Your task to perform on an android device: Open calendar and show me the first week of next month Image 0: 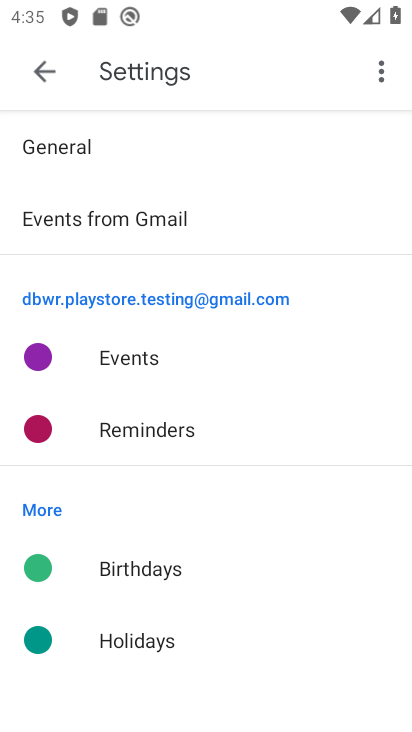
Step 0: press home button
Your task to perform on an android device: Open calendar and show me the first week of next month Image 1: 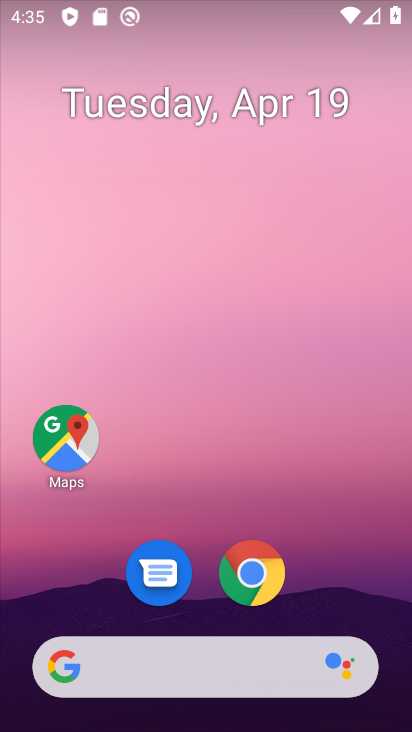
Step 1: drag from (376, 575) to (409, 210)
Your task to perform on an android device: Open calendar and show me the first week of next month Image 2: 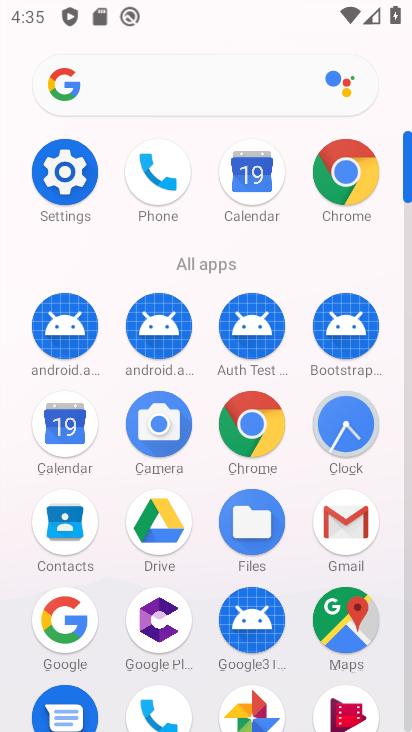
Step 2: click (43, 432)
Your task to perform on an android device: Open calendar and show me the first week of next month Image 3: 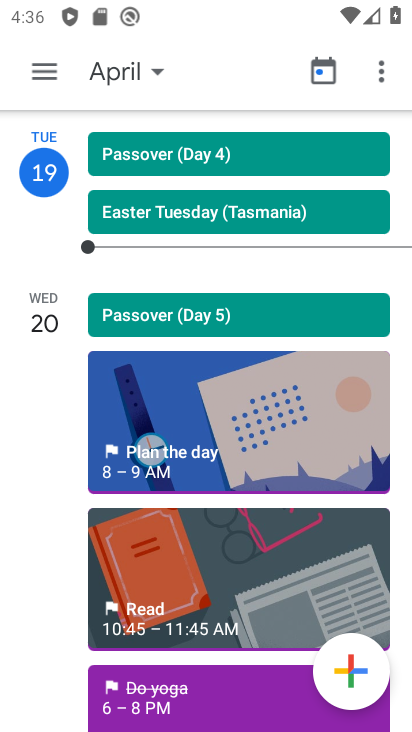
Step 3: click (110, 60)
Your task to perform on an android device: Open calendar and show me the first week of next month Image 4: 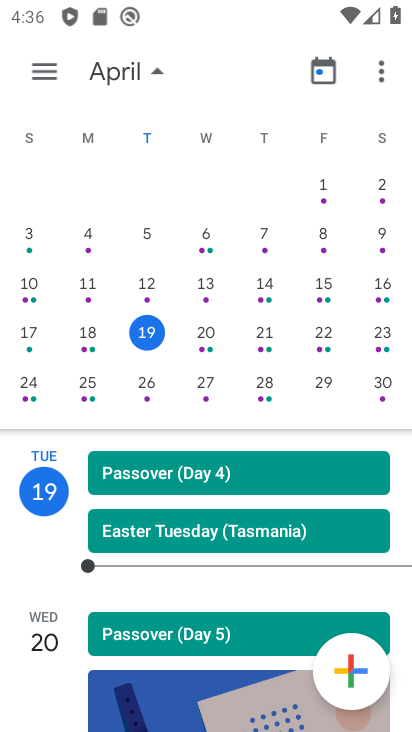
Step 4: drag from (170, 309) to (0, 347)
Your task to perform on an android device: Open calendar and show me the first week of next month Image 5: 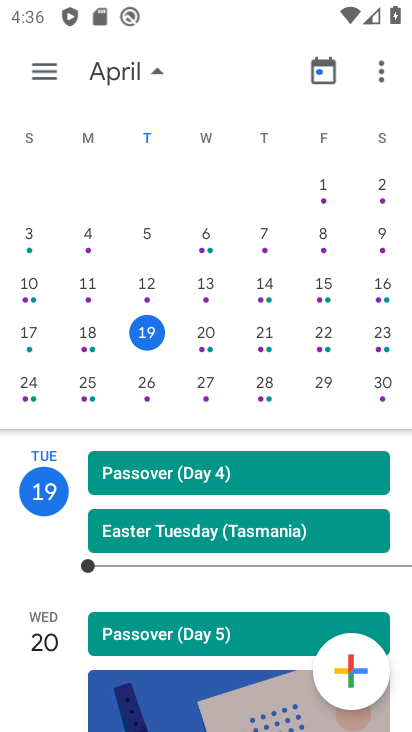
Step 5: click (200, 231)
Your task to perform on an android device: Open calendar and show me the first week of next month Image 6: 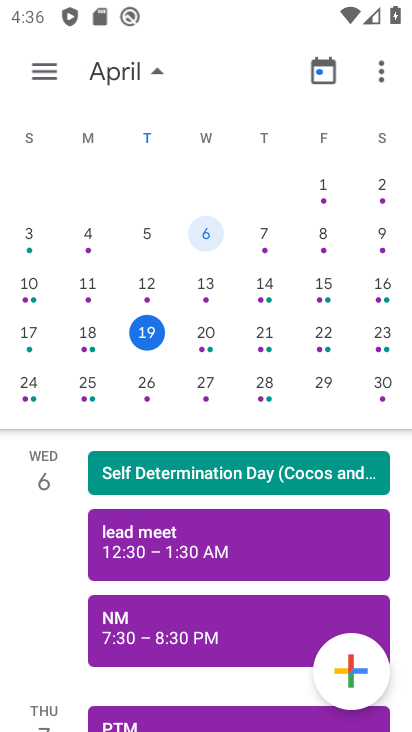
Step 6: task complete